Your task to perform on an android device: Go to sound settings Image 0: 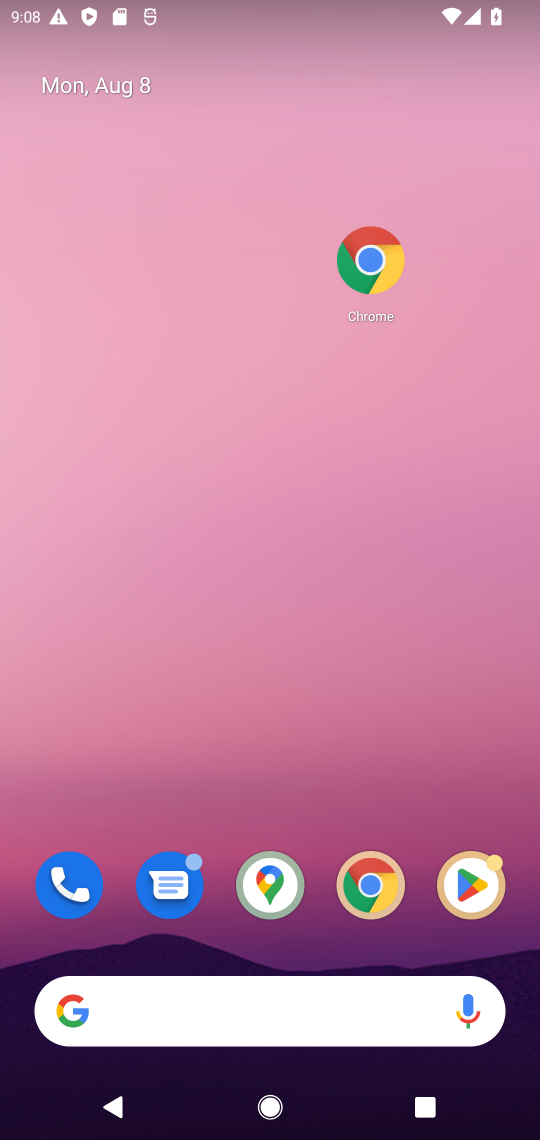
Step 0: press home button
Your task to perform on an android device: Go to sound settings Image 1: 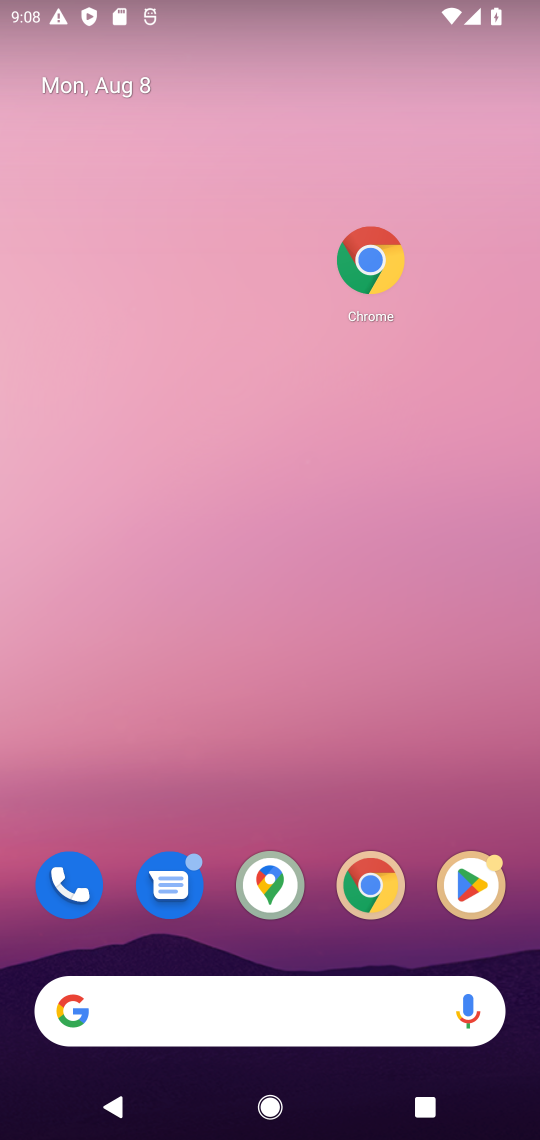
Step 1: drag from (320, 702) to (324, 65)
Your task to perform on an android device: Go to sound settings Image 2: 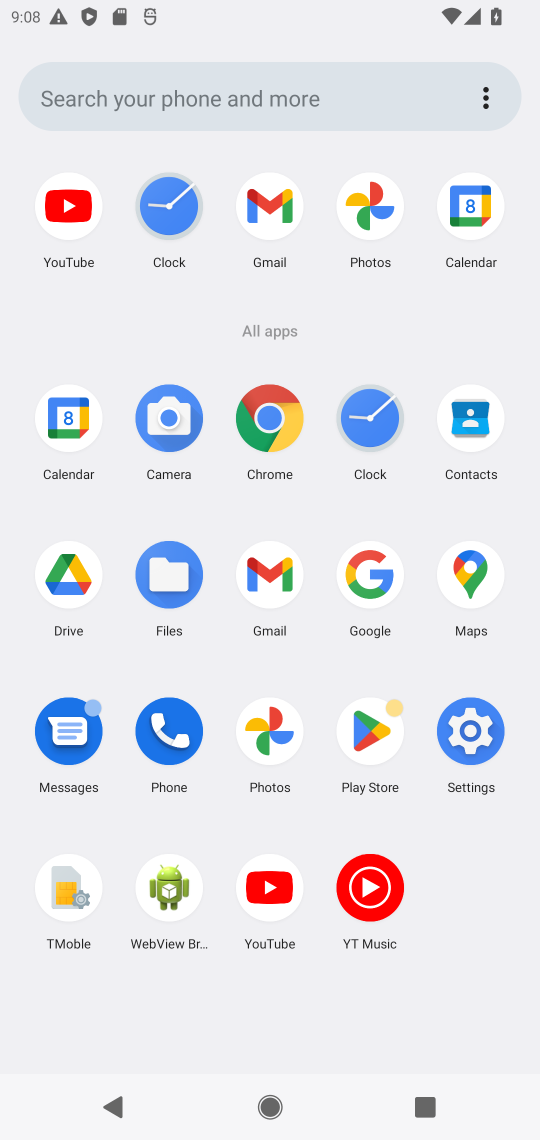
Step 2: click (485, 736)
Your task to perform on an android device: Go to sound settings Image 3: 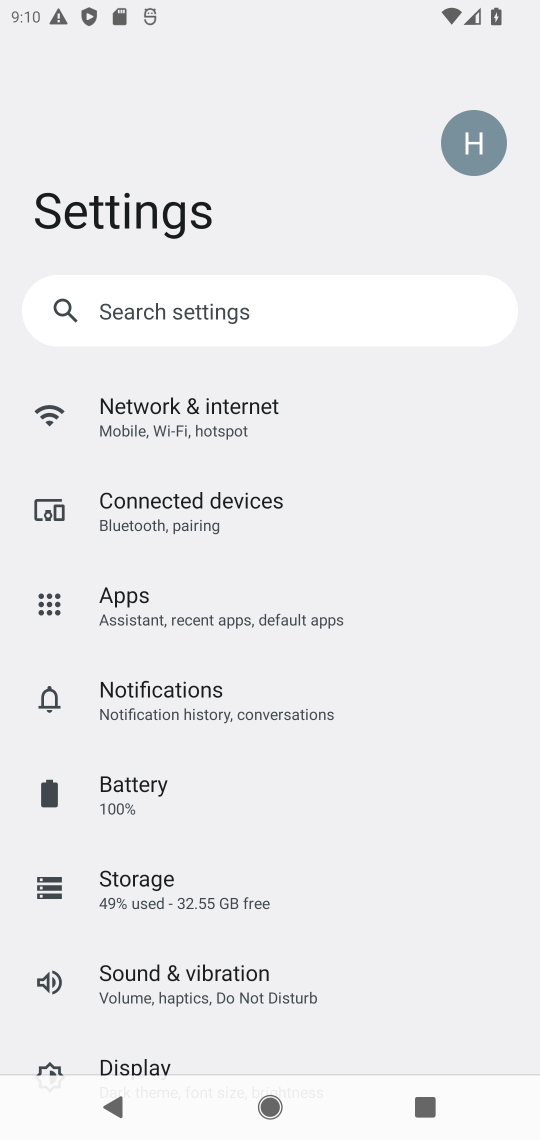
Step 3: drag from (201, 945) to (208, 338)
Your task to perform on an android device: Go to sound settings Image 4: 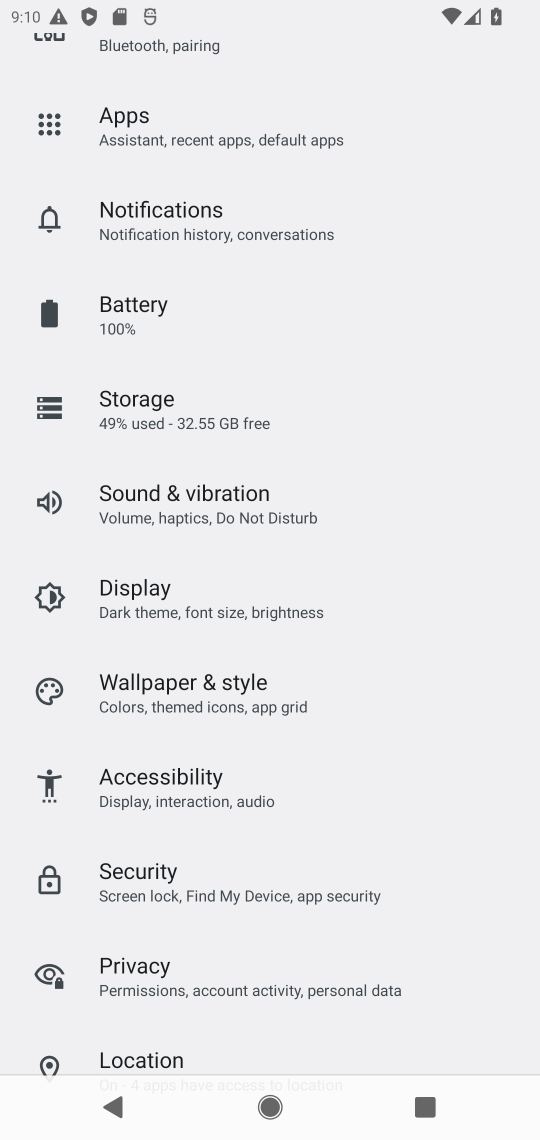
Step 4: click (187, 466)
Your task to perform on an android device: Go to sound settings Image 5: 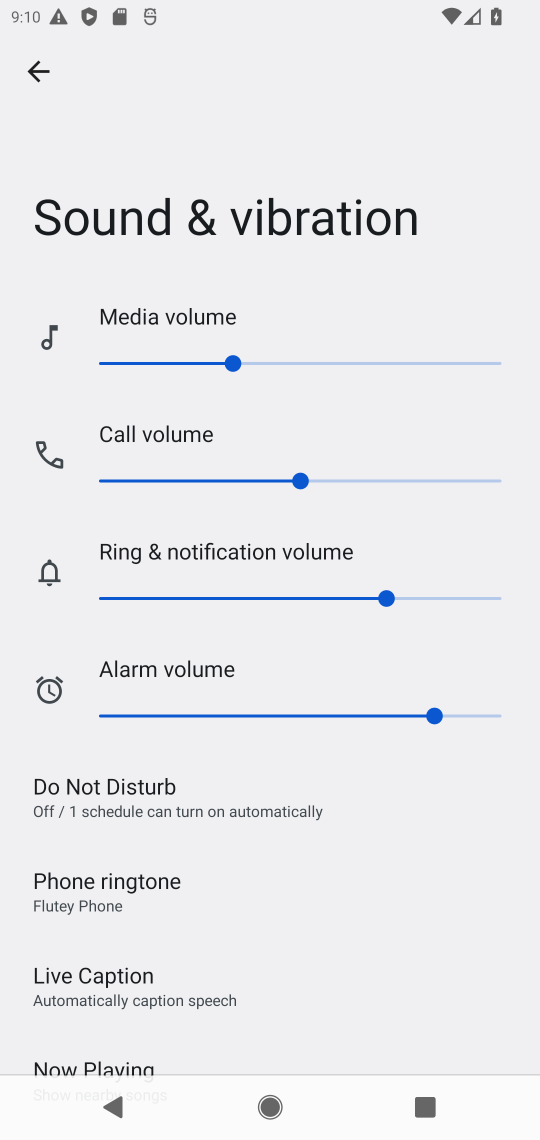
Step 5: task complete